Your task to perform on an android device: Show me the alarms in the clock app Image 0: 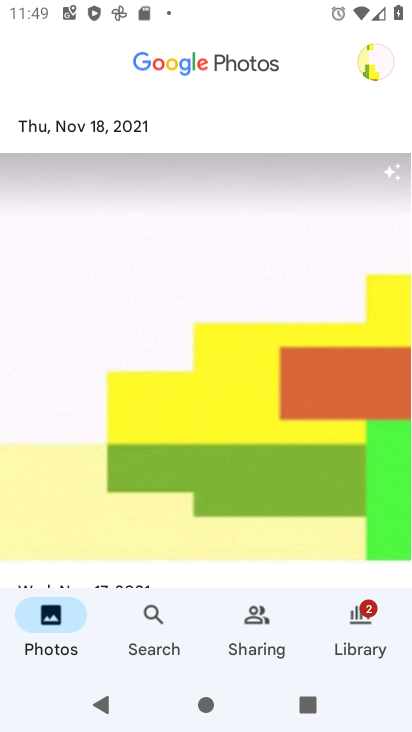
Step 0: press home button
Your task to perform on an android device: Show me the alarms in the clock app Image 1: 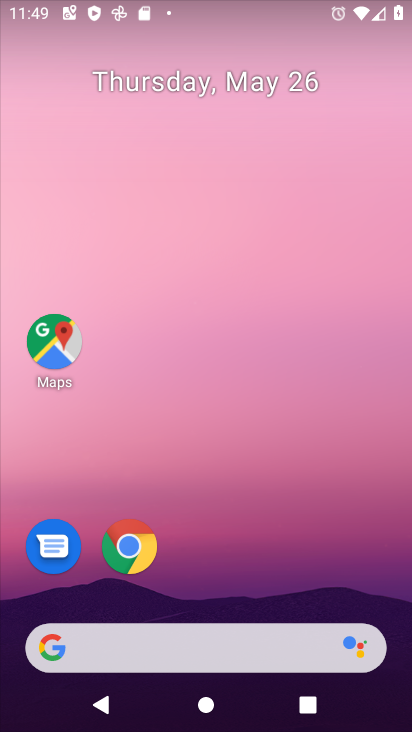
Step 1: drag from (203, 575) to (173, 103)
Your task to perform on an android device: Show me the alarms in the clock app Image 2: 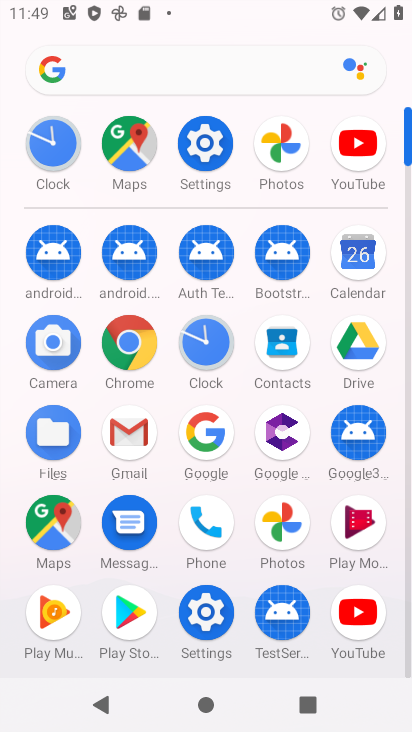
Step 2: click (205, 330)
Your task to perform on an android device: Show me the alarms in the clock app Image 3: 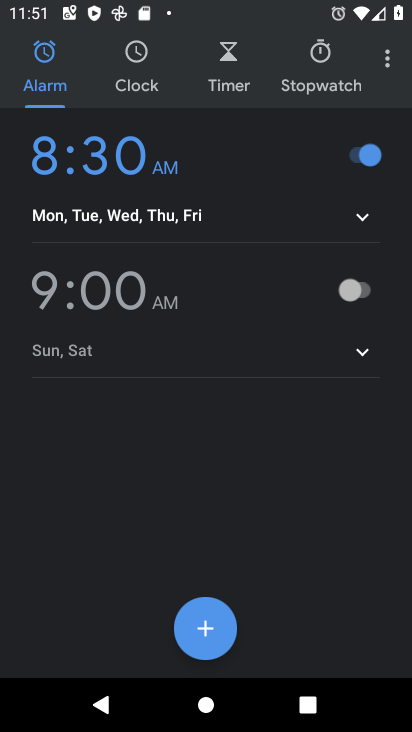
Step 3: task complete